Your task to perform on an android device: turn notification dots on Image 0: 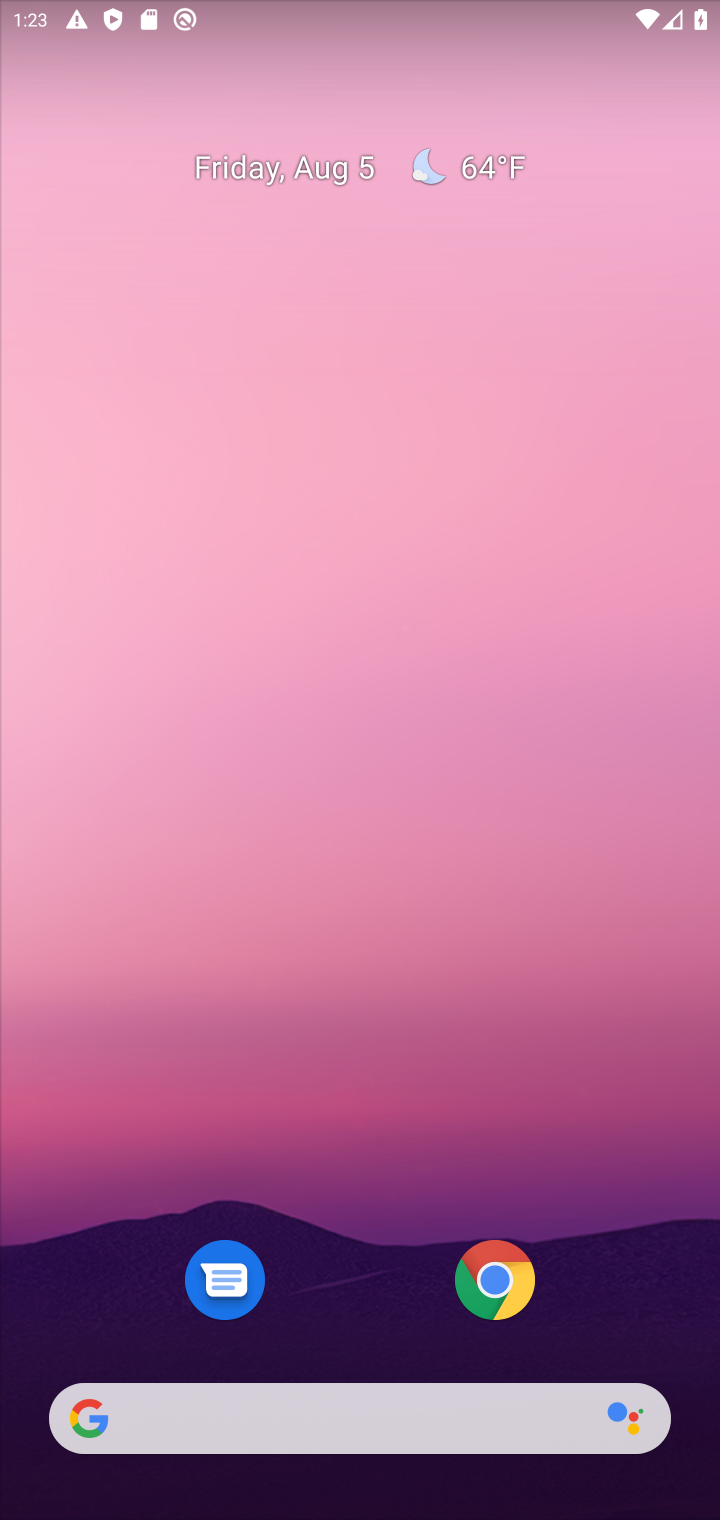
Step 0: drag from (325, 1230) to (308, 277)
Your task to perform on an android device: turn notification dots on Image 1: 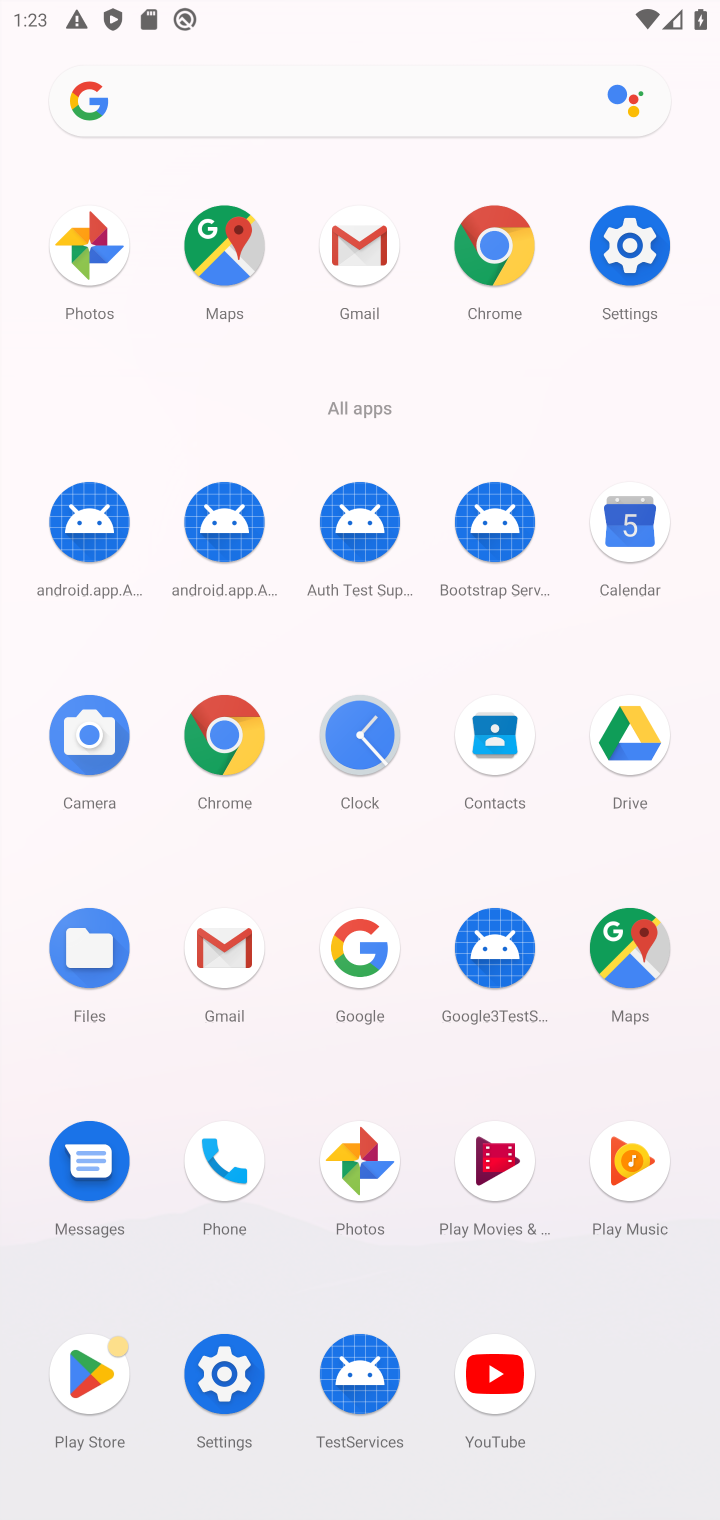
Step 1: click (641, 254)
Your task to perform on an android device: turn notification dots on Image 2: 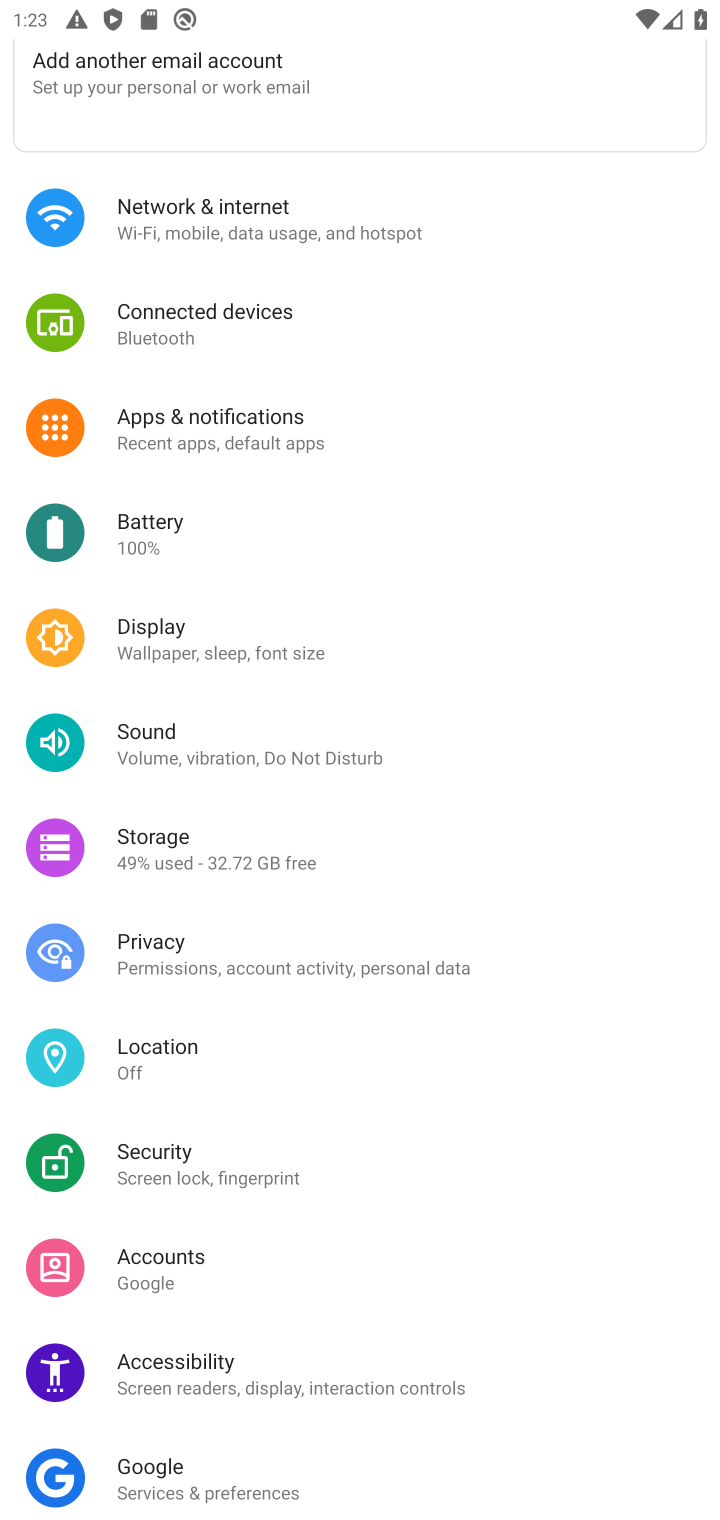
Step 2: click (249, 420)
Your task to perform on an android device: turn notification dots on Image 3: 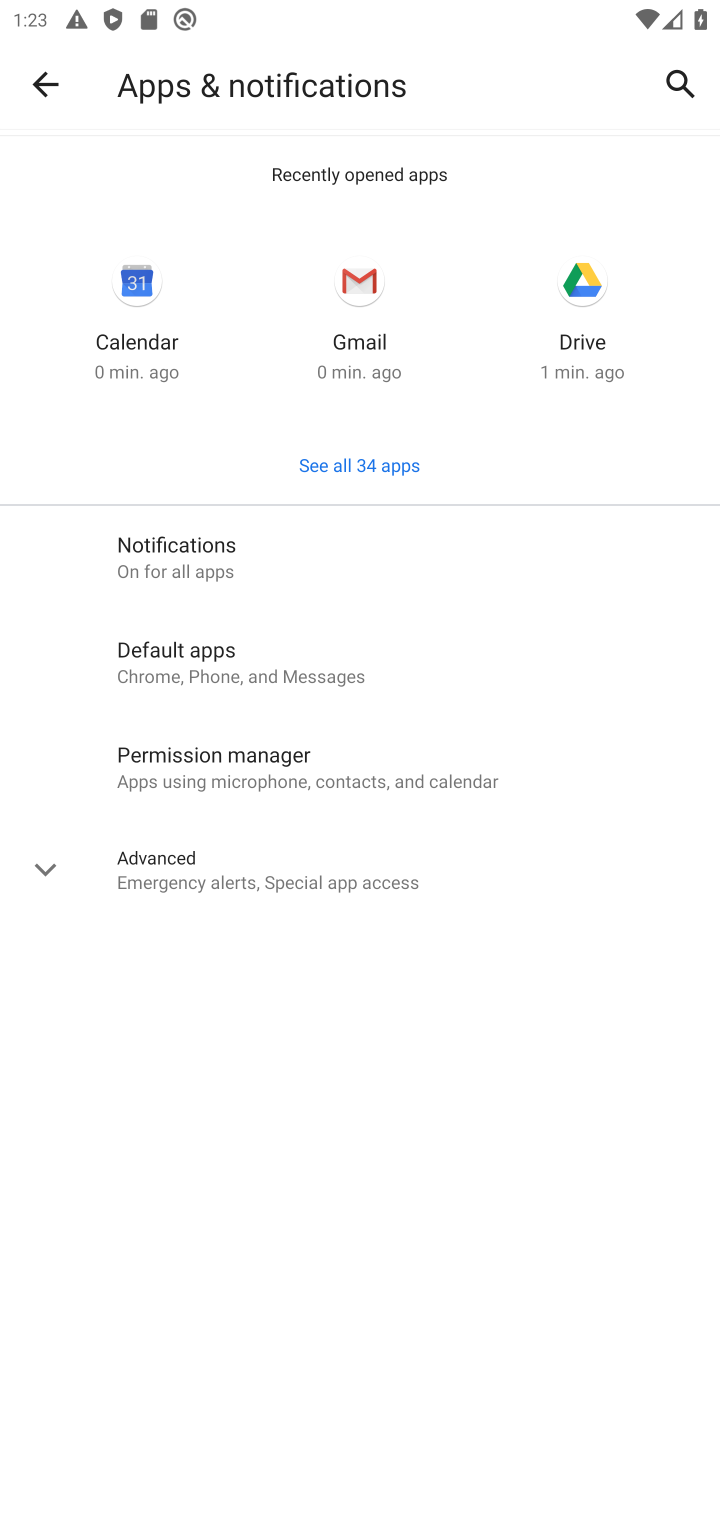
Step 3: click (250, 560)
Your task to perform on an android device: turn notification dots on Image 4: 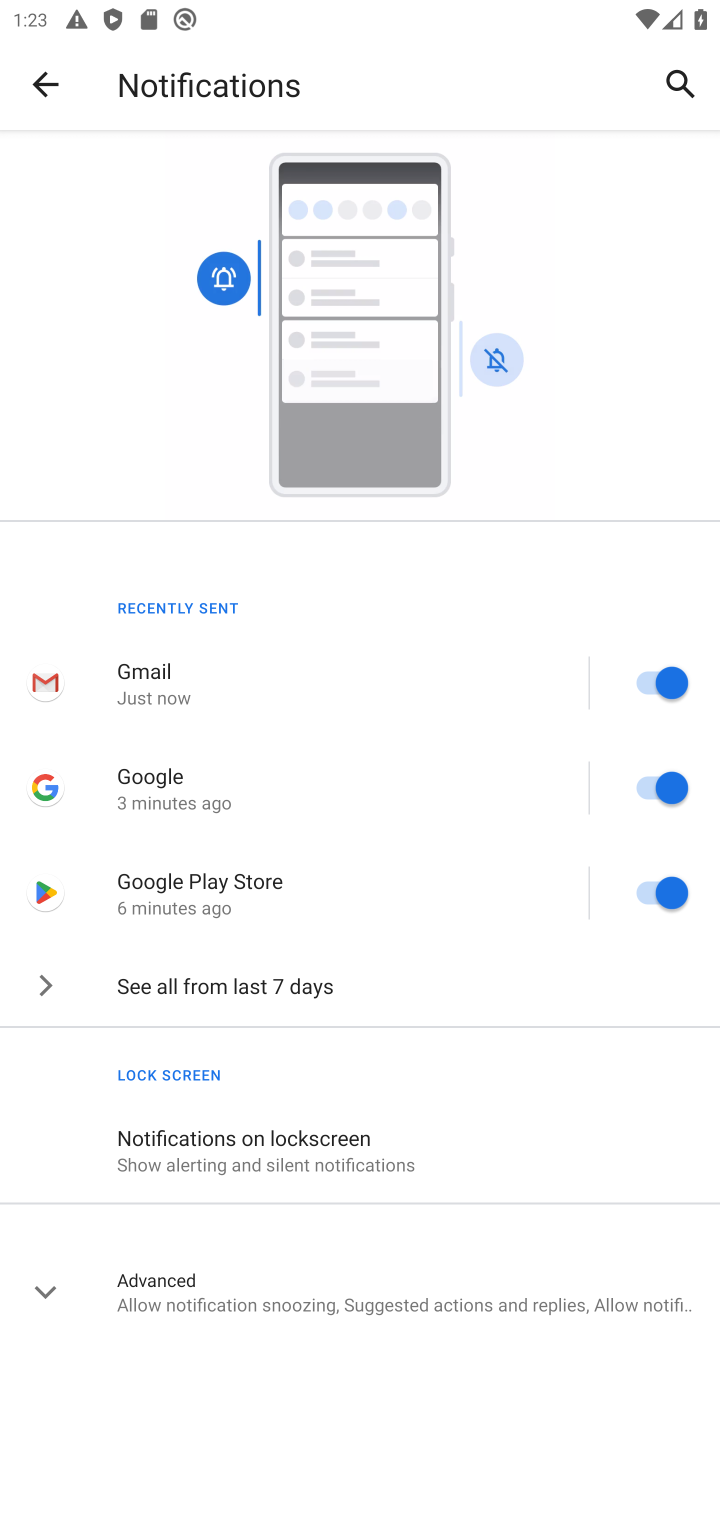
Step 4: click (263, 1272)
Your task to perform on an android device: turn notification dots on Image 5: 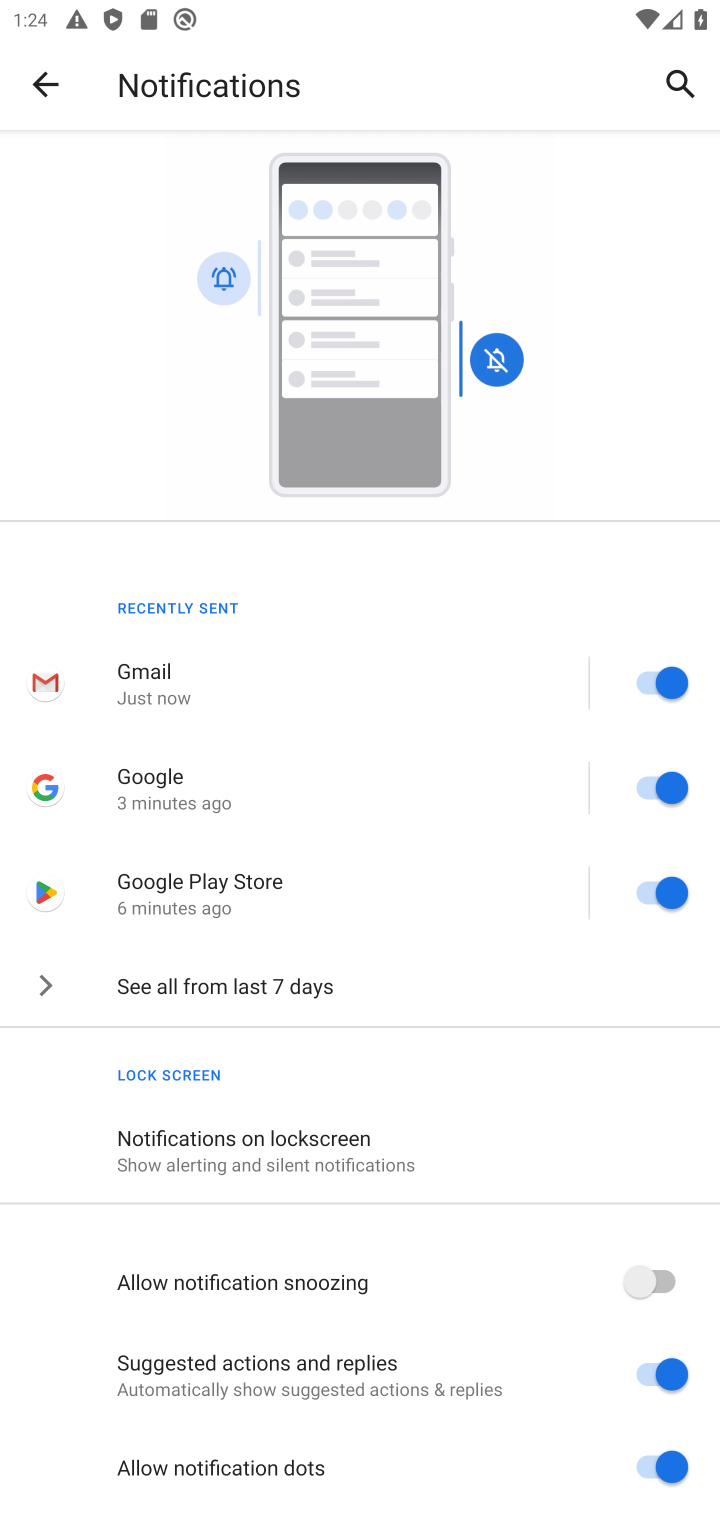
Step 5: task complete